Your task to perform on an android device: Show me productivity apps on the Play Store Image 0: 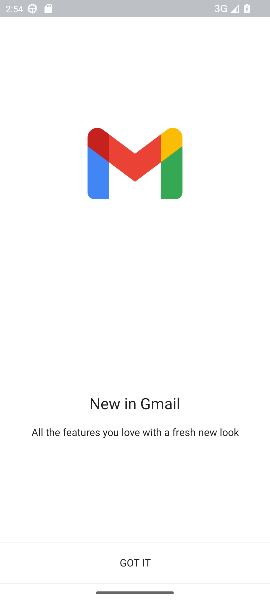
Step 0: press home button
Your task to perform on an android device: Show me productivity apps on the Play Store Image 1: 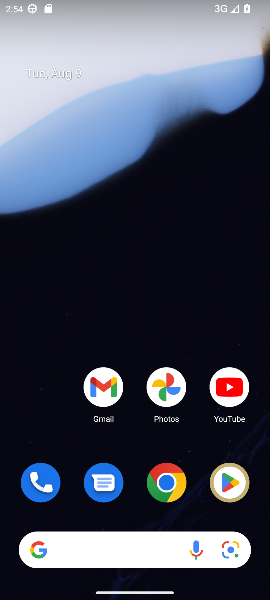
Step 1: click (238, 495)
Your task to perform on an android device: Show me productivity apps on the Play Store Image 2: 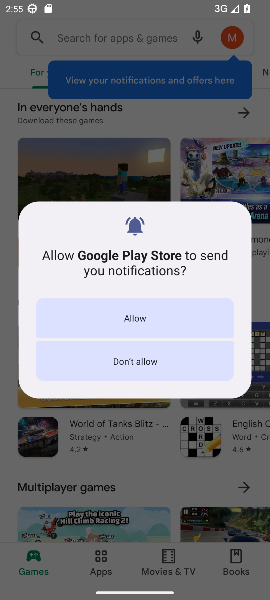
Step 2: click (125, 313)
Your task to perform on an android device: Show me productivity apps on the Play Store Image 3: 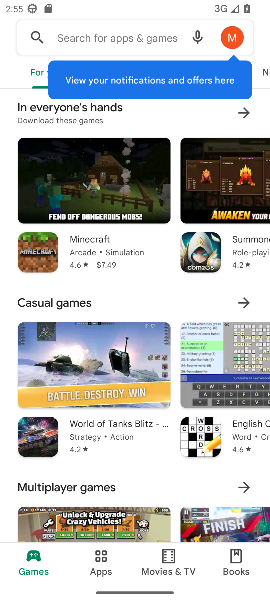
Step 3: click (101, 562)
Your task to perform on an android device: Show me productivity apps on the Play Store Image 4: 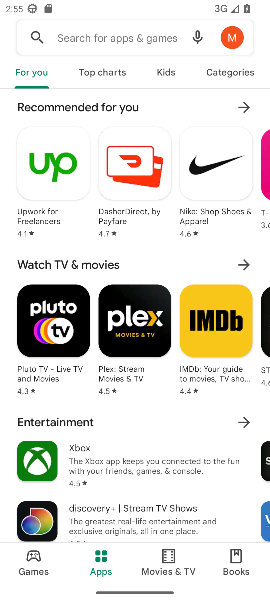
Step 4: click (213, 71)
Your task to perform on an android device: Show me productivity apps on the Play Store Image 5: 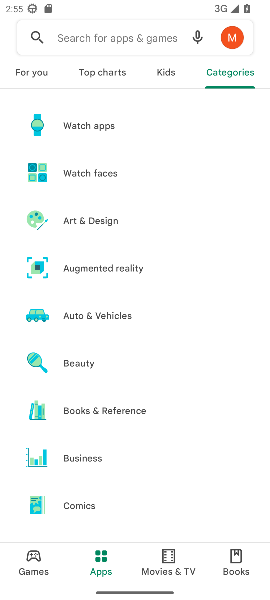
Step 5: drag from (140, 473) to (161, 167)
Your task to perform on an android device: Show me productivity apps on the Play Store Image 6: 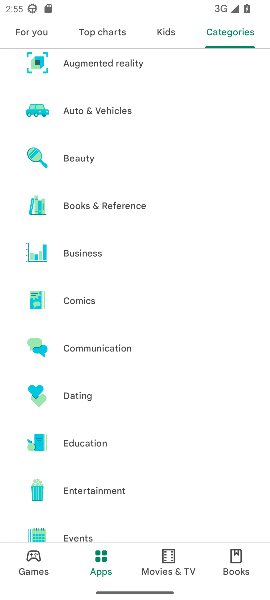
Step 6: drag from (153, 475) to (160, 169)
Your task to perform on an android device: Show me productivity apps on the Play Store Image 7: 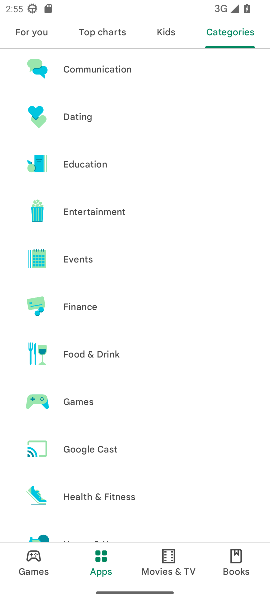
Step 7: drag from (153, 460) to (162, 152)
Your task to perform on an android device: Show me productivity apps on the Play Store Image 8: 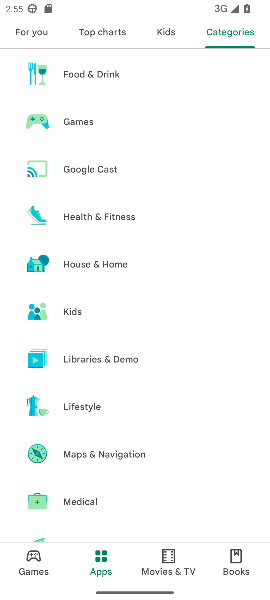
Step 8: drag from (137, 481) to (136, 175)
Your task to perform on an android device: Show me productivity apps on the Play Store Image 9: 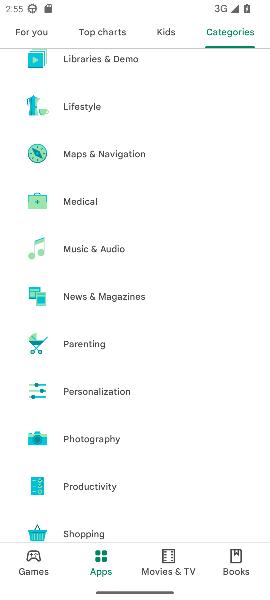
Step 9: click (104, 485)
Your task to perform on an android device: Show me productivity apps on the Play Store Image 10: 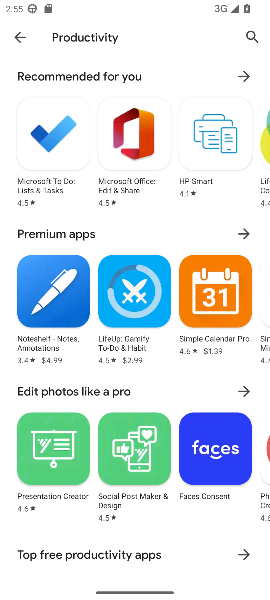
Step 10: task complete